Your task to perform on an android device: Open battery settings Image 0: 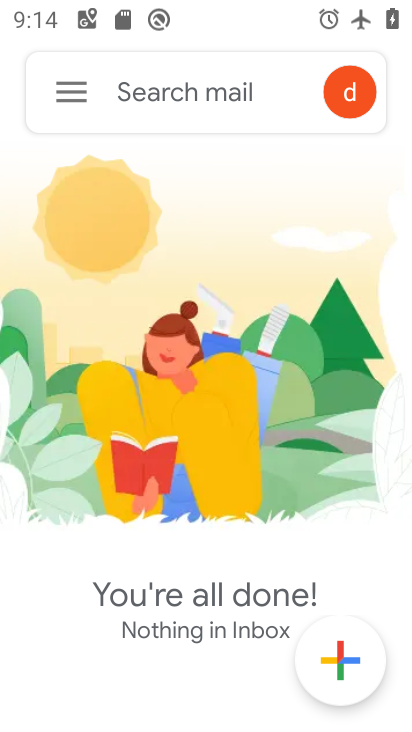
Step 0: press home button
Your task to perform on an android device: Open battery settings Image 1: 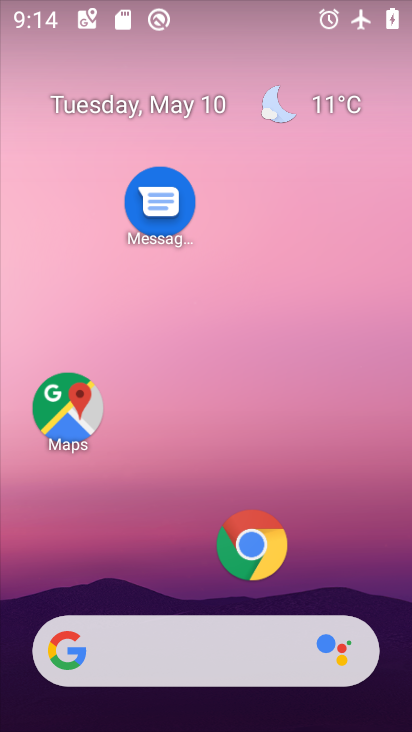
Step 1: drag from (199, 592) to (227, 66)
Your task to perform on an android device: Open battery settings Image 2: 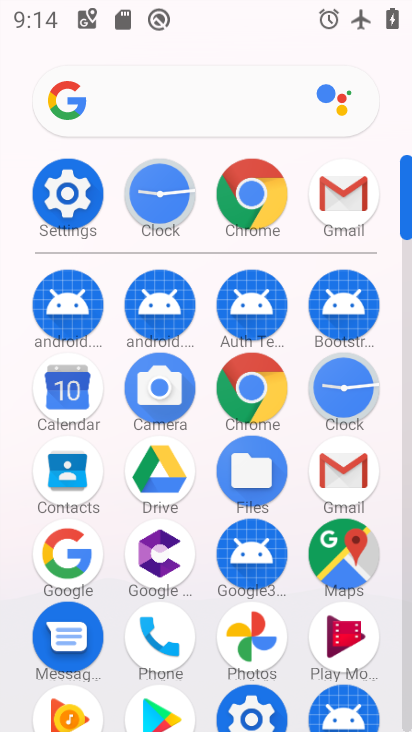
Step 2: click (68, 188)
Your task to perform on an android device: Open battery settings Image 3: 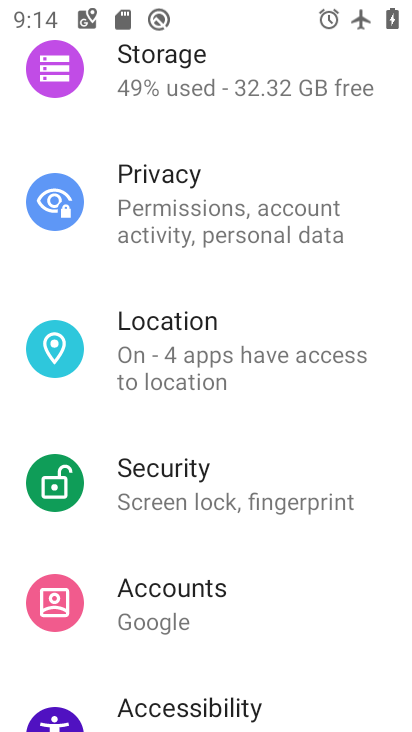
Step 3: drag from (208, 112) to (205, 703)
Your task to perform on an android device: Open battery settings Image 4: 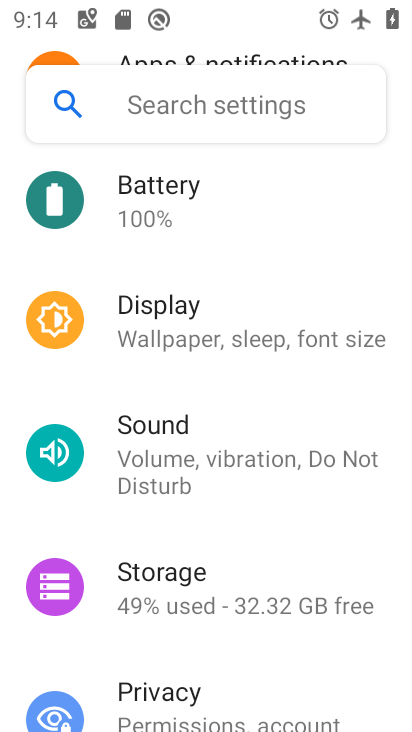
Step 4: drag from (190, 202) to (185, 724)
Your task to perform on an android device: Open battery settings Image 5: 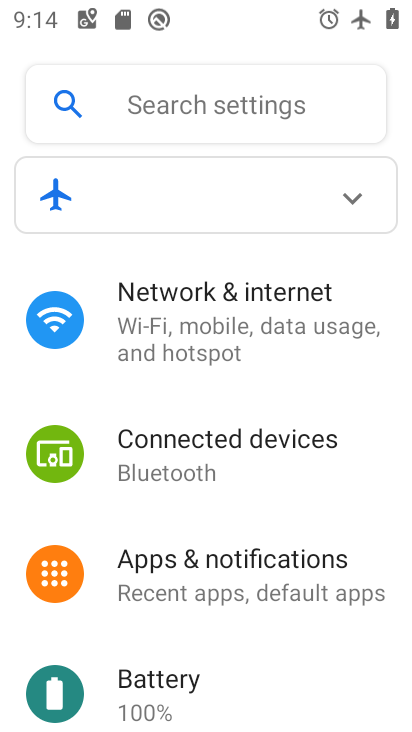
Step 5: click (182, 681)
Your task to perform on an android device: Open battery settings Image 6: 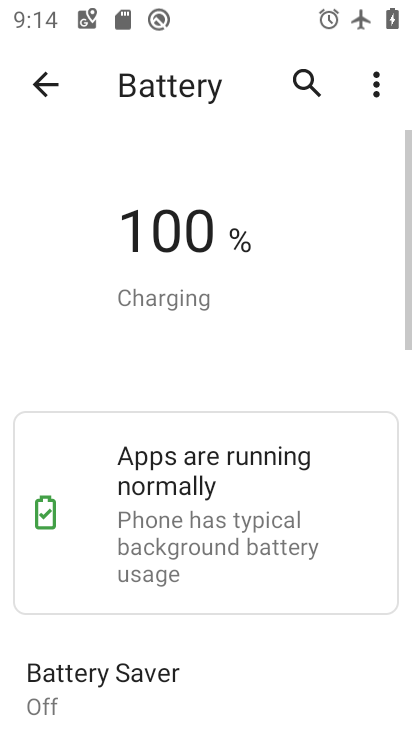
Step 6: task complete